Your task to perform on an android device: turn smart compose on in the gmail app Image 0: 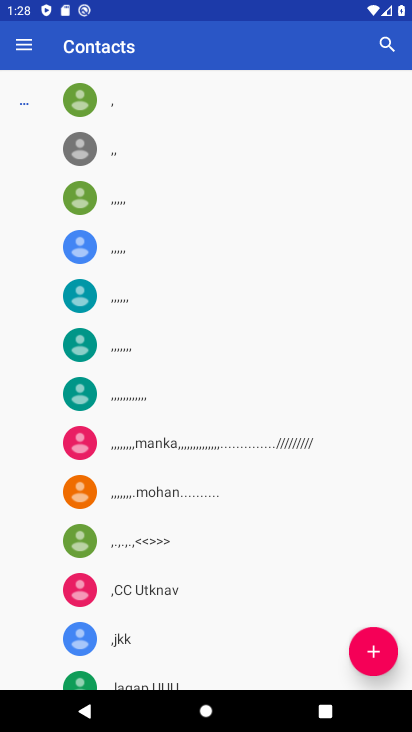
Step 0: press home button
Your task to perform on an android device: turn smart compose on in the gmail app Image 1: 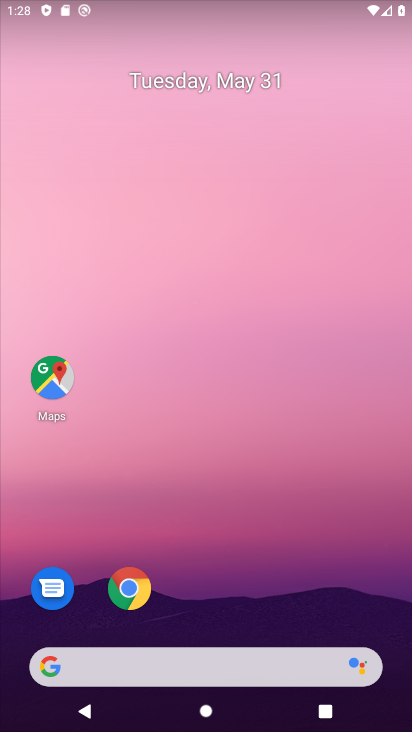
Step 1: drag from (226, 622) to (171, 238)
Your task to perform on an android device: turn smart compose on in the gmail app Image 2: 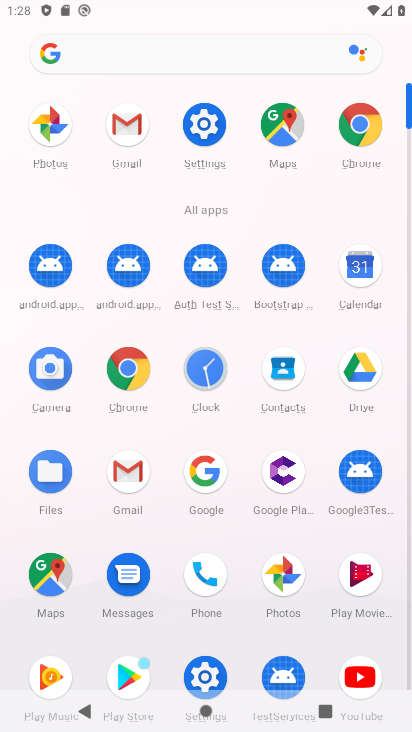
Step 2: click (131, 132)
Your task to perform on an android device: turn smart compose on in the gmail app Image 3: 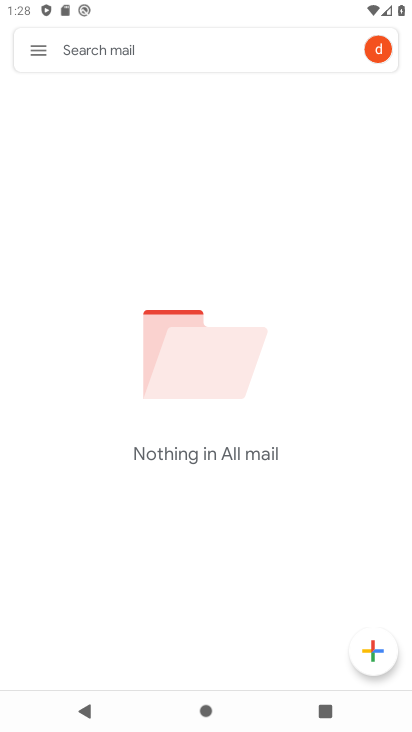
Step 3: click (46, 49)
Your task to perform on an android device: turn smart compose on in the gmail app Image 4: 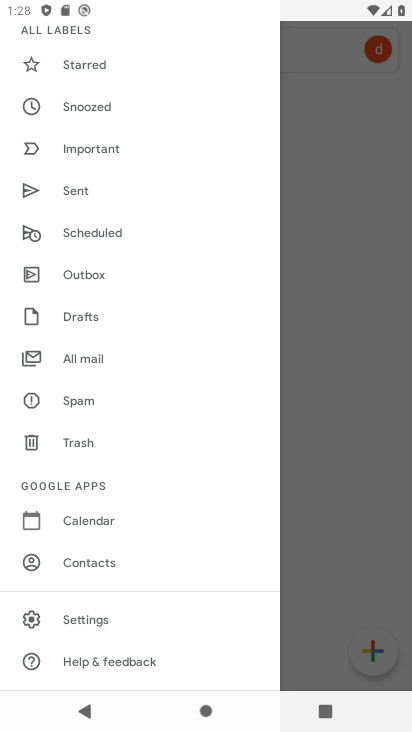
Step 4: click (112, 620)
Your task to perform on an android device: turn smart compose on in the gmail app Image 5: 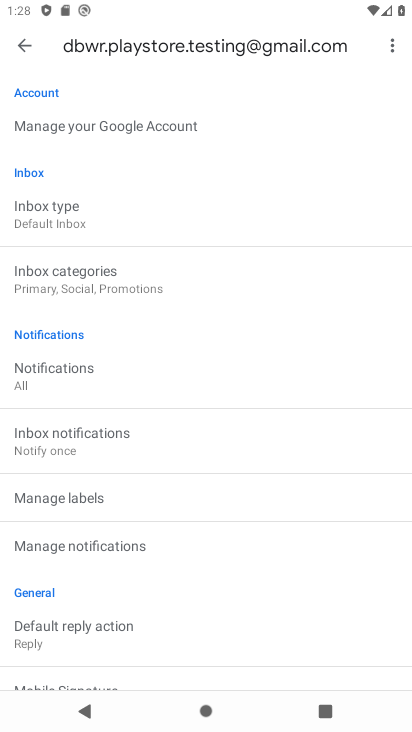
Step 5: task complete